Your task to perform on an android device: turn off notifications settings in the gmail app Image 0: 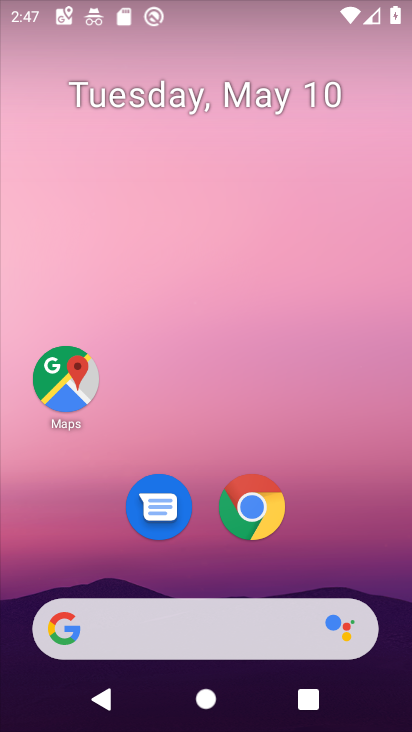
Step 0: drag from (198, 416) to (195, 137)
Your task to perform on an android device: turn off notifications settings in the gmail app Image 1: 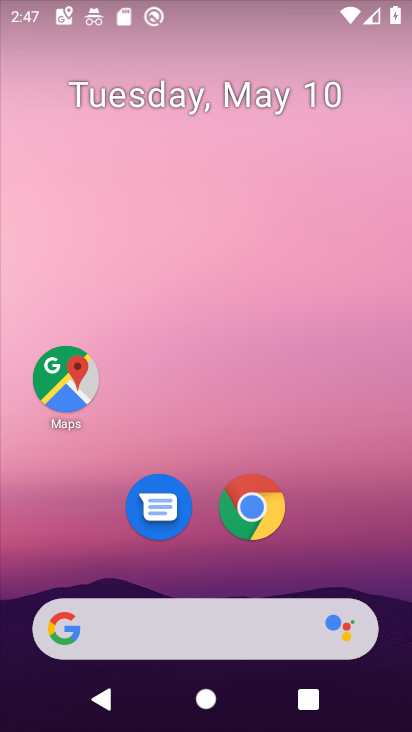
Step 1: drag from (215, 557) to (176, 99)
Your task to perform on an android device: turn off notifications settings in the gmail app Image 2: 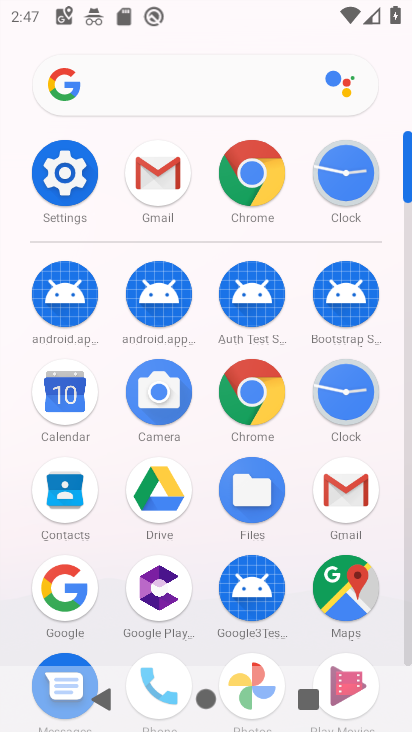
Step 2: click (163, 181)
Your task to perform on an android device: turn off notifications settings in the gmail app Image 3: 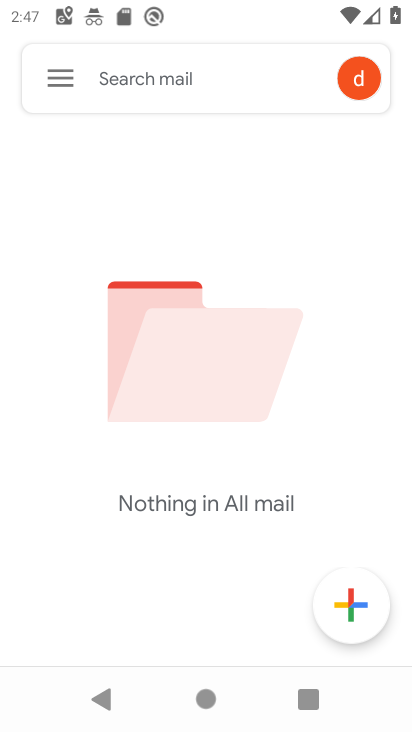
Step 3: click (59, 79)
Your task to perform on an android device: turn off notifications settings in the gmail app Image 4: 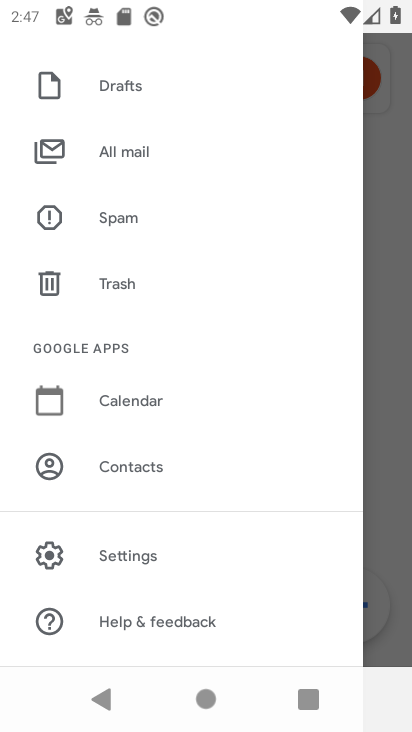
Step 4: click (127, 557)
Your task to perform on an android device: turn off notifications settings in the gmail app Image 5: 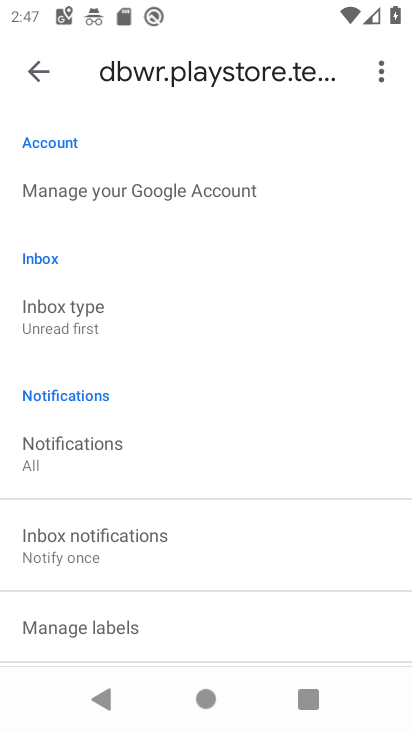
Step 5: drag from (170, 546) to (186, 303)
Your task to perform on an android device: turn off notifications settings in the gmail app Image 6: 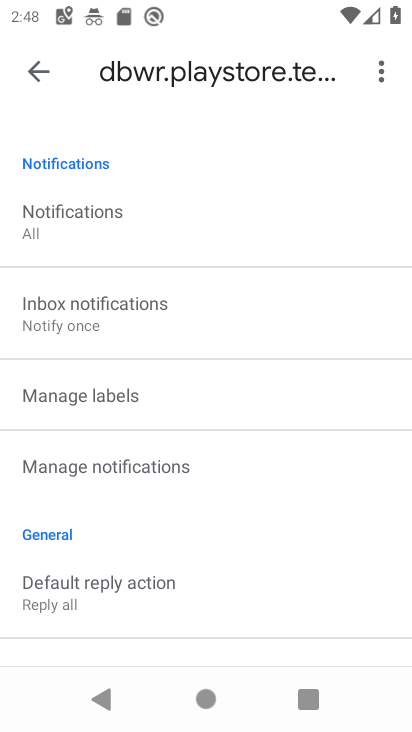
Step 6: drag from (247, 555) to (284, 324)
Your task to perform on an android device: turn off notifications settings in the gmail app Image 7: 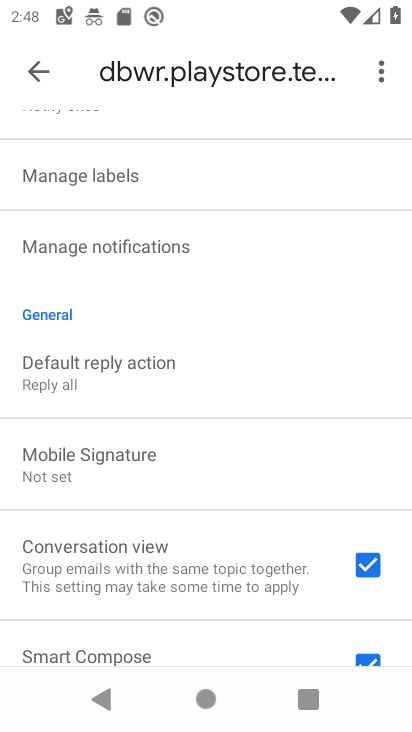
Step 7: click (166, 249)
Your task to perform on an android device: turn off notifications settings in the gmail app Image 8: 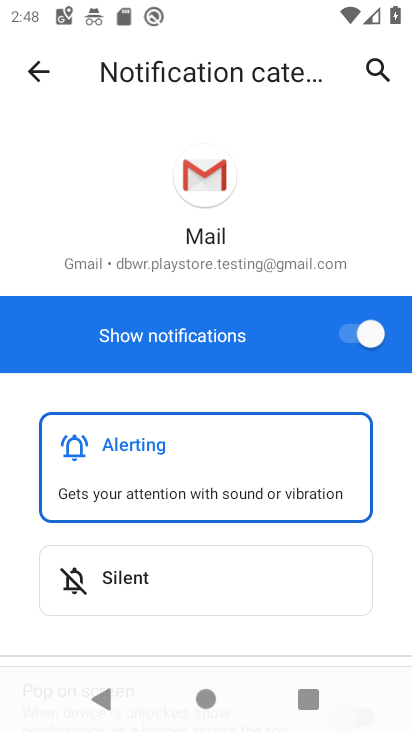
Step 8: click (347, 337)
Your task to perform on an android device: turn off notifications settings in the gmail app Image 9: 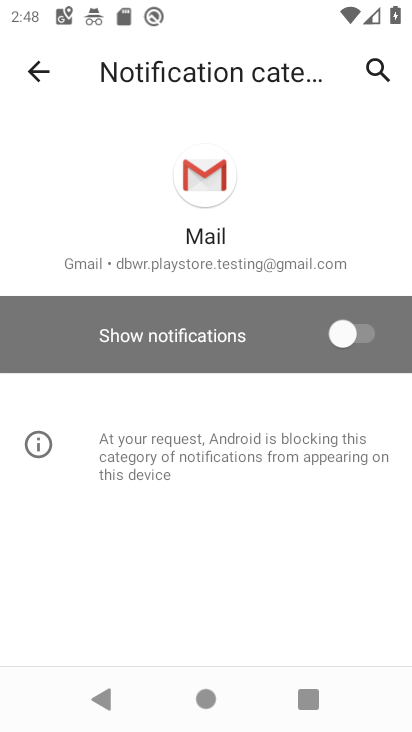
Step 9: task complete